Your task to perform on an android device: set default search engine in the chrome app Image 0: 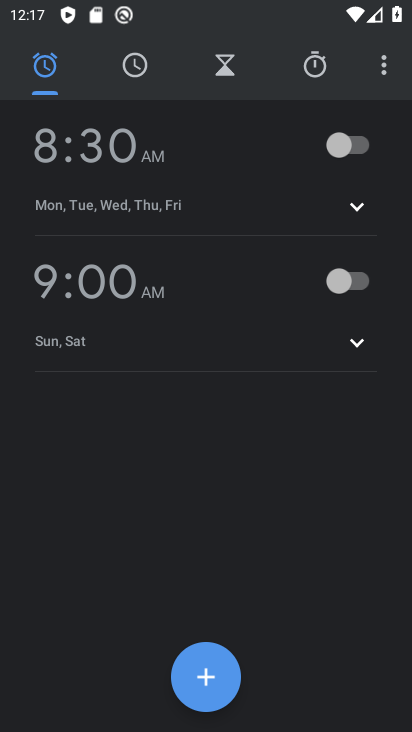
Step 0: press home button
Your task to perform on an android device: set default search engine in the chrome app Image 1: 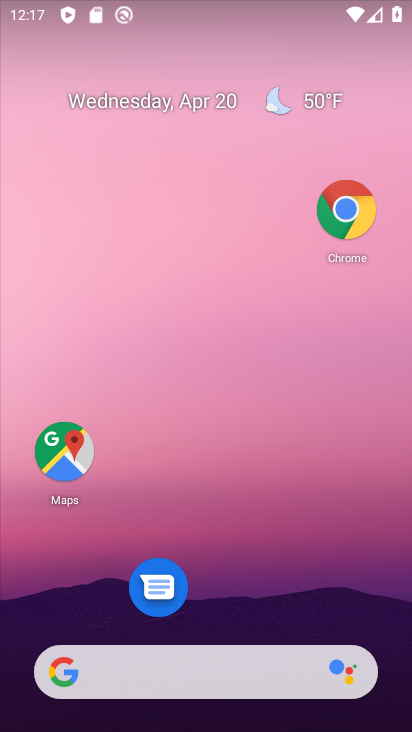
Step 1: click (354, 203)
Your task to perform on an android device: set default search engine in the chrome app Image 2: 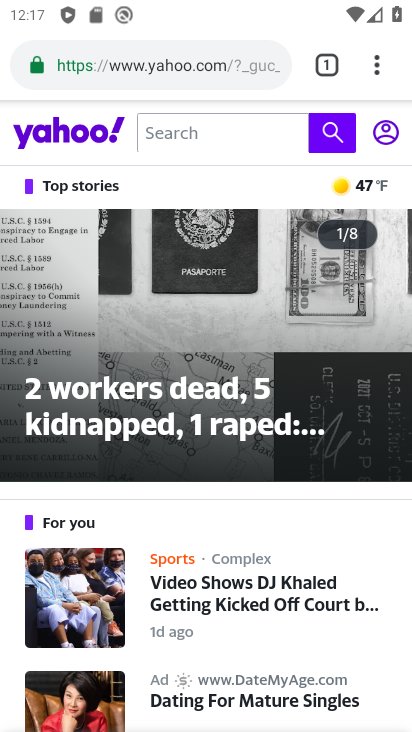
Step 2: click (372, 57)
Your task to perform on an android device: set default search engine in the chrome app Image 3: 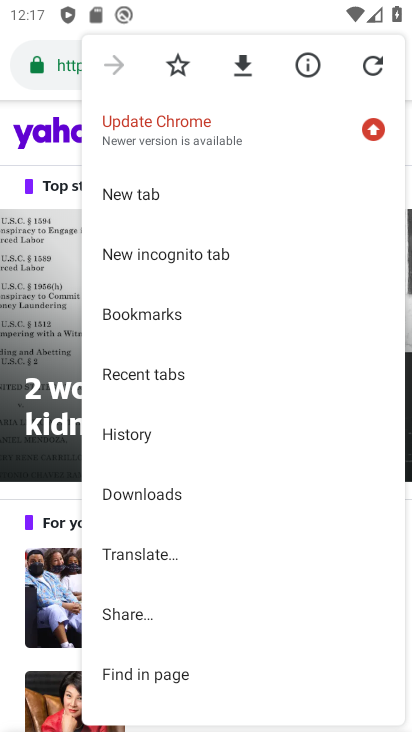
Step 3: drag from (153, 638) to (229, 214)
Your task to perform on an android device: set default search engine in the chrome app Image 4: 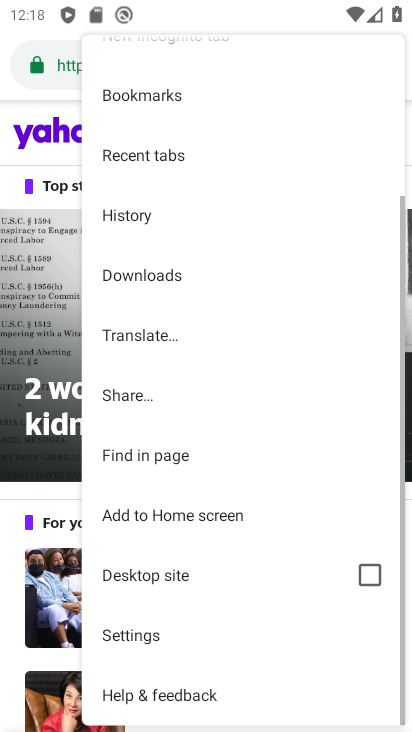
Step 4: click (130, 638)
Your task to perform on an android device: set default search engine in the chrome app Image 5: 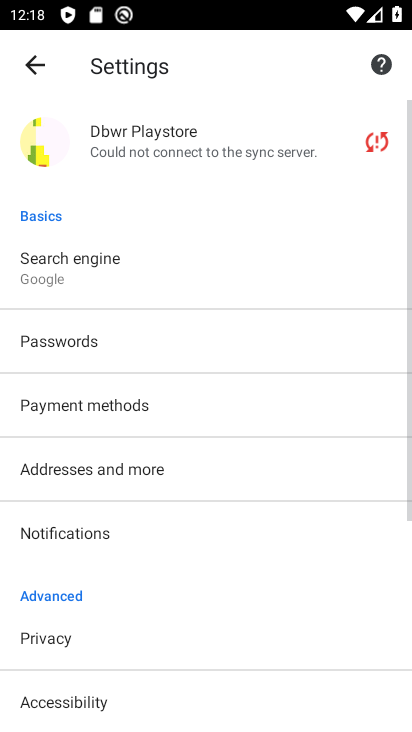
Step 5: click (80, 266)
Your task to perform on an android device: set default search engine in the chrome app Image 6: 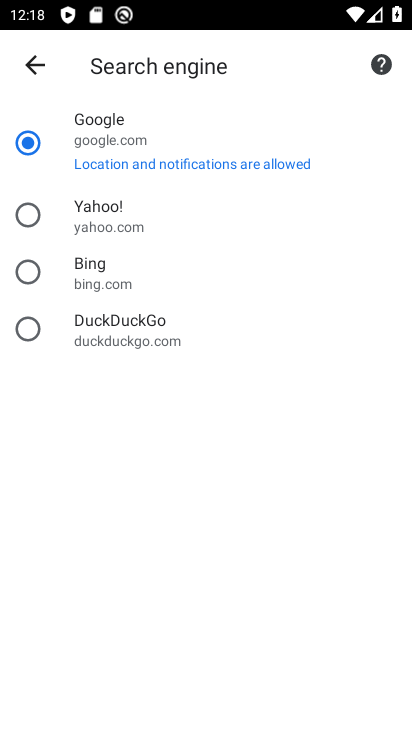
Step 6: click (21, 213)
Your task to perform on an android device: set default search engine in the chrome app Image 7: 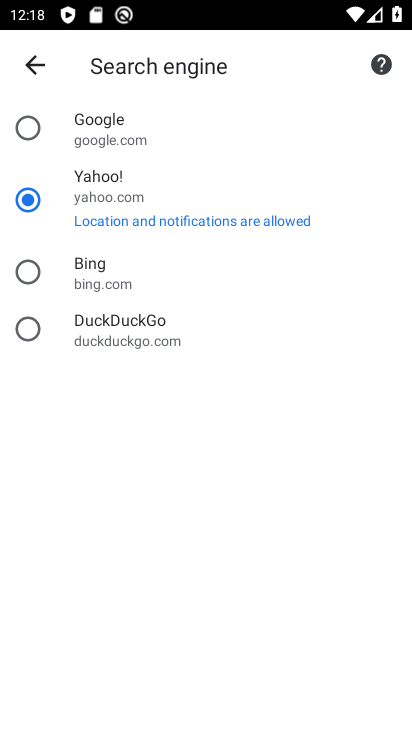
Step 7: task complete